Your task to perform on an android device: turn off wifi Image 0: 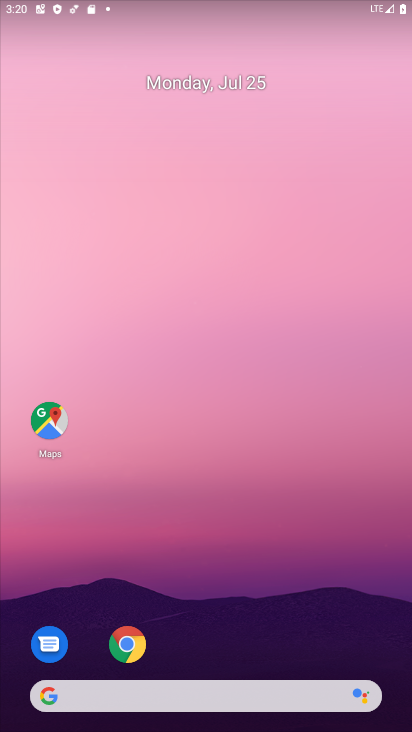
Step 0: drag from (279, 651) to (243, 180)
Your task to perform on an android device: turn off wifi Image 1: 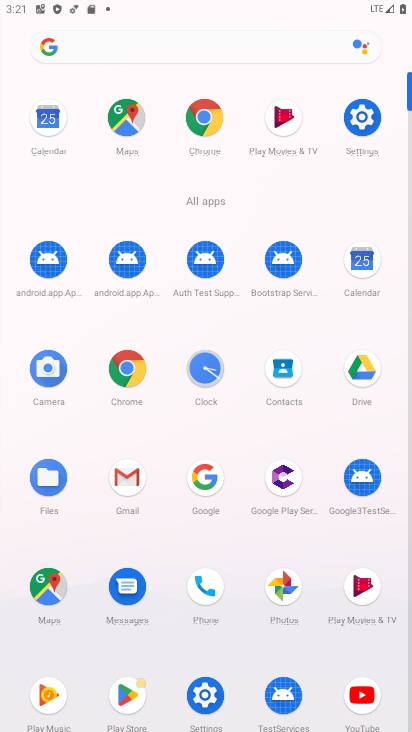
Step 1: click (364, 124)
Your task to perform on an android device: turn off wifi Image 2: 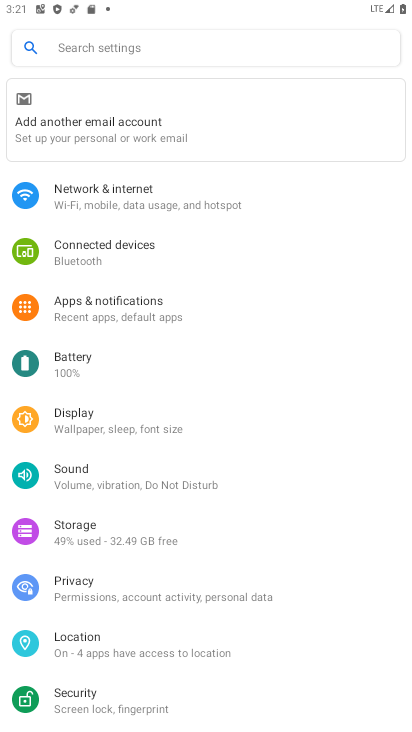
Step 2: click (187, 207)
Your task to perform on an android device: turn off wifi Image 3: 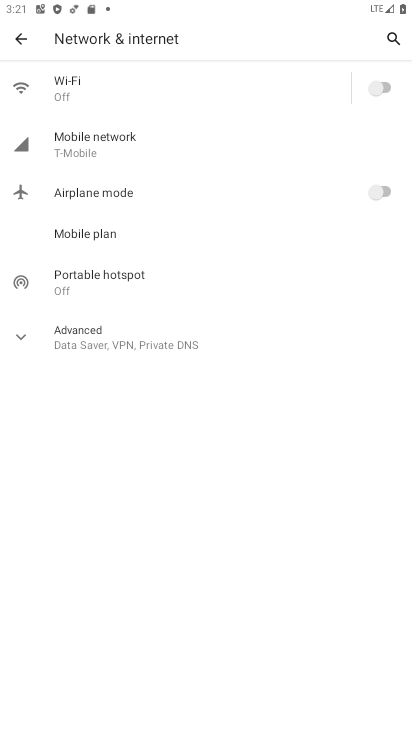
Step 3: task complete